Your task to perform on an android device: Open the calendar and show me this week's events Image 0: 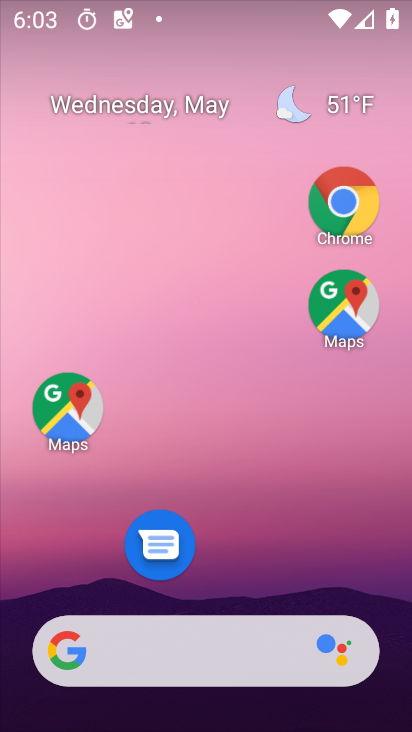
Step 0: click (347, 222)
Your task to perform on an android device: Open the calendar and show me this week's events Image 1: 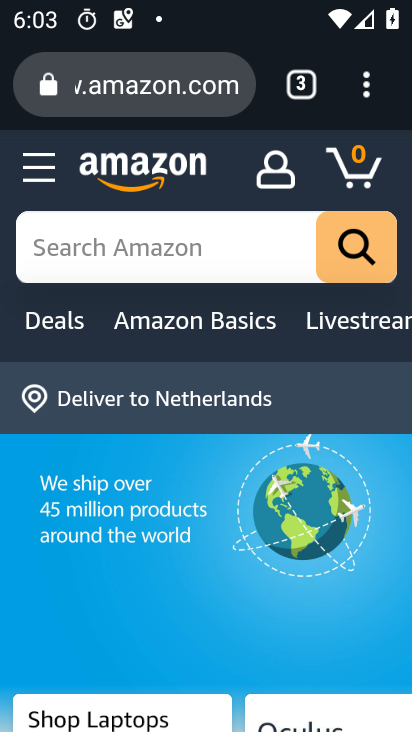
Step 1: press home button
Your task to perform on an android device: Open the calendar and show me this week's events Image 2: 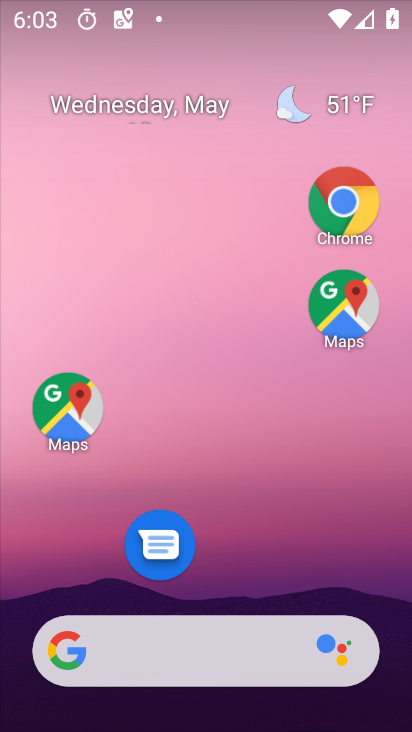
Step 2: drag from (223, 140) to (214, 5)
Your task to perform on an android device: Open the calendar and show me this week's events Image 3: 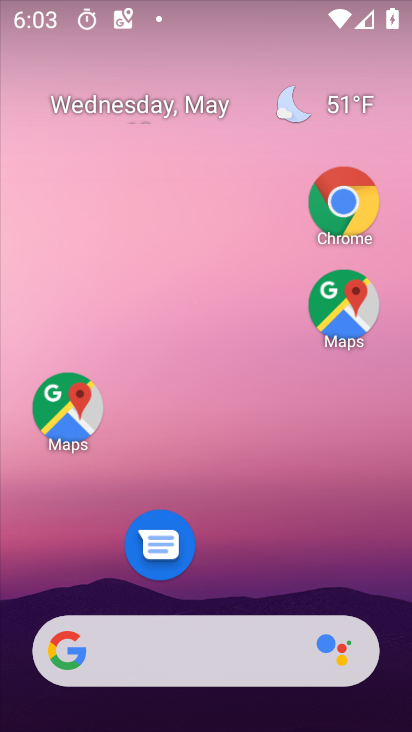
Step 3: drag from (241, 541) to (211, 42)
Your task to perform on an android device: Open the calendar and show me this week's events Image 4: 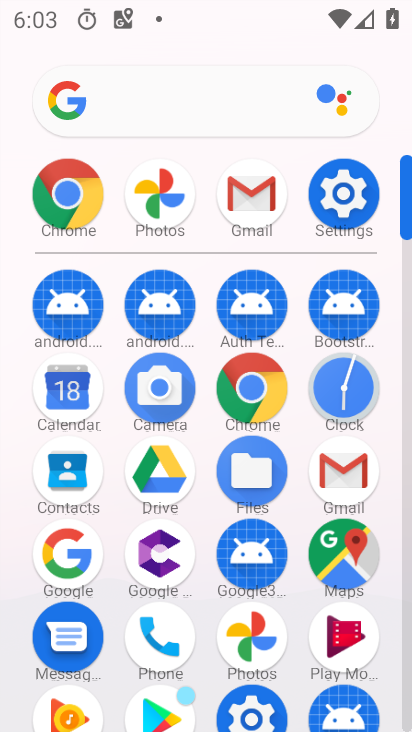
Step 4: click (63, 389)
Your task to perform on an android device: Open the calendar and show me this week's events Image 5: 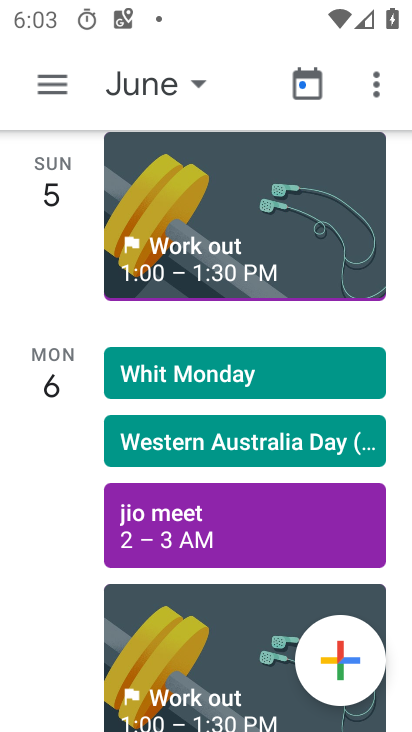
Step 5: click (50, 89)
Your task to perform on an android device: Open the calendar and show me this week's events Image 6: 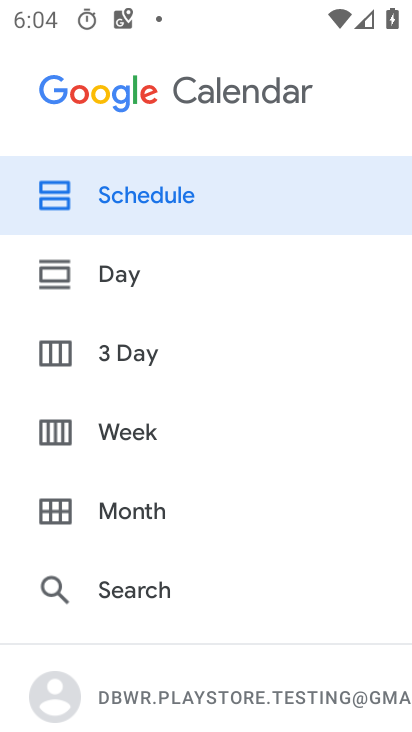
Step 6: click (144, 442)
Your task to perform on an android device: Open the calendar and show me this week's events Image 7: 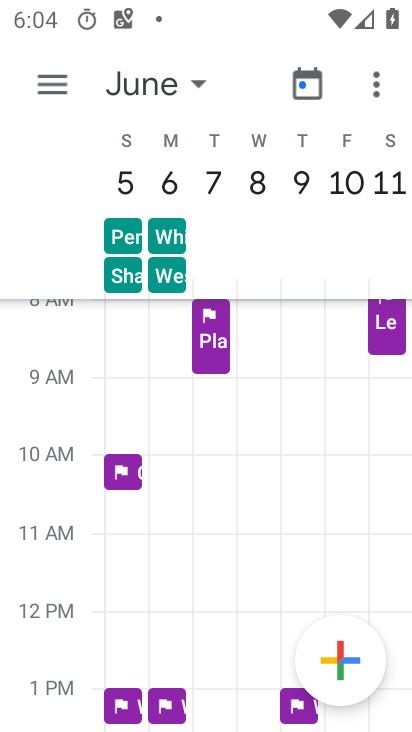
Step 7: click (143, 85)
Your task to perform on an android device: Open the calendar and show me this week's events Image 8: 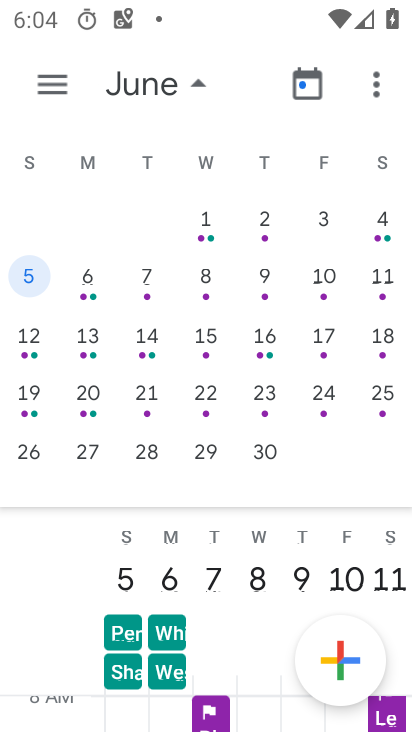
Step 8: click (395, 282)
Your task to perform on an android device: Open the calendar and show me this week's events Image 9: 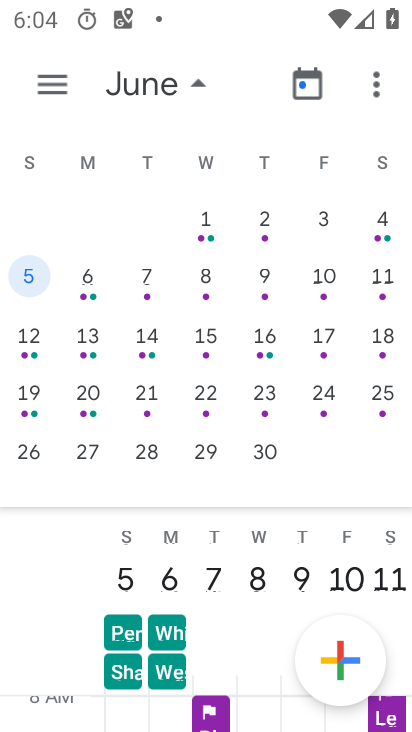
Step 9: drag from (125, 321) to (403, 315)
Your task to perform on an android device: Open the calendar and show me this week's events Image 10: 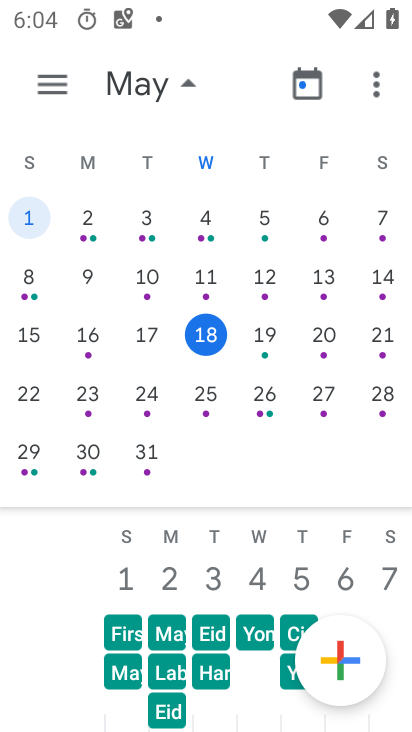
Step 10: click (34, 340)
Your task to perform on an android device: Open the calendar and show me this week's events Image 11: 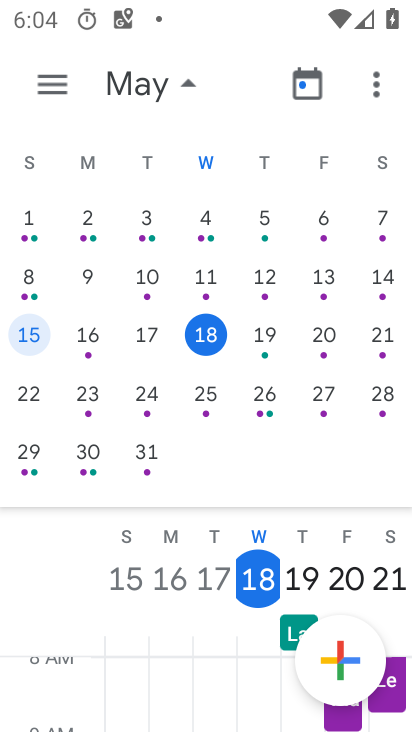
Step 11: task complete